Your task to perform on an android device: Search for Mexican restaurants on Maps Image 0: 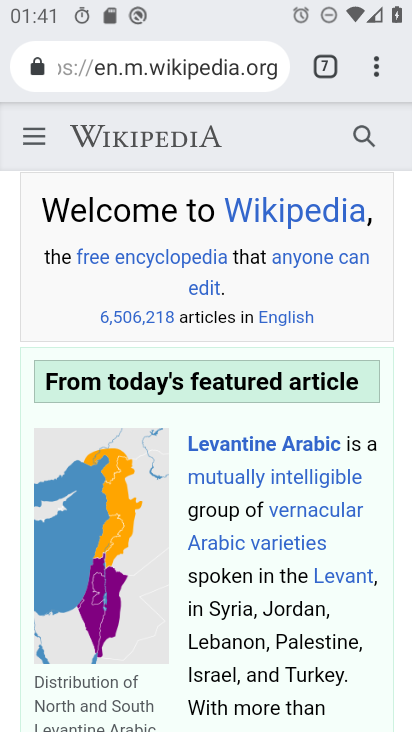
Step 0: press home button
Your task to perform on an android device: Search for Mexican restaurants on Maps Image 1: 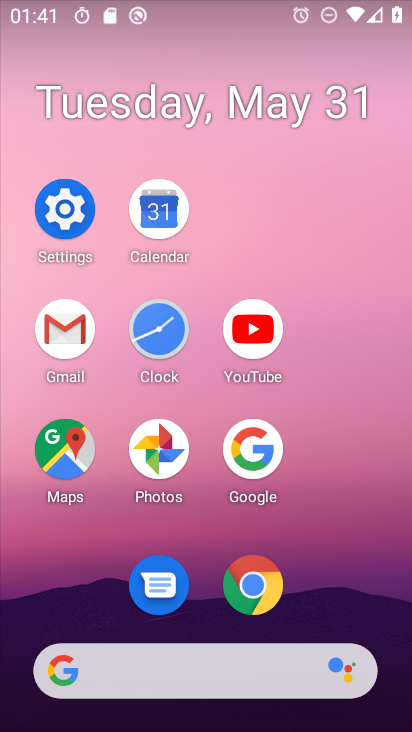
Step 1: click (69, 427)
Your task to perform on an android device: Search for Mexican restaurants on Maps Image 2: 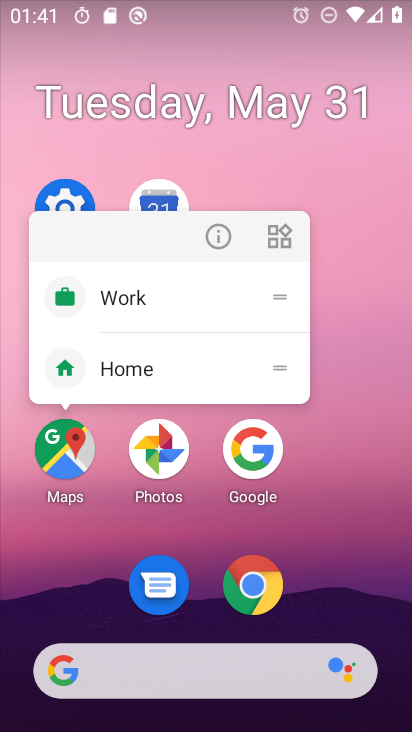
Step 2: click (64, 446)
Your task to perform on an android device: Search for Mexican restaurants on Maps Image 3: 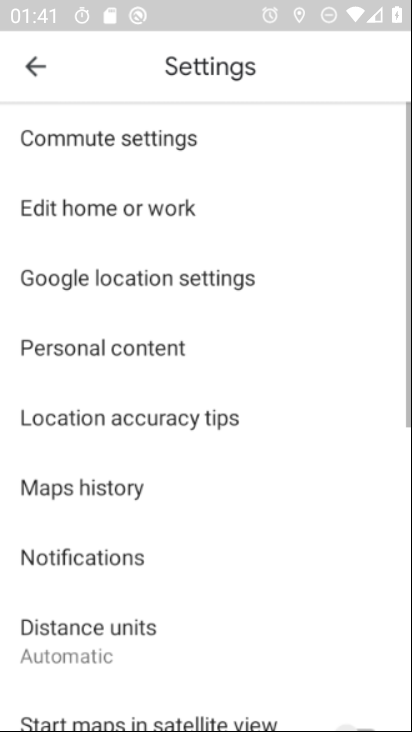
Step 3: click (57, 66)
Your task to perform on an android device: Search for Mexican restaurants on Maps Image 4: 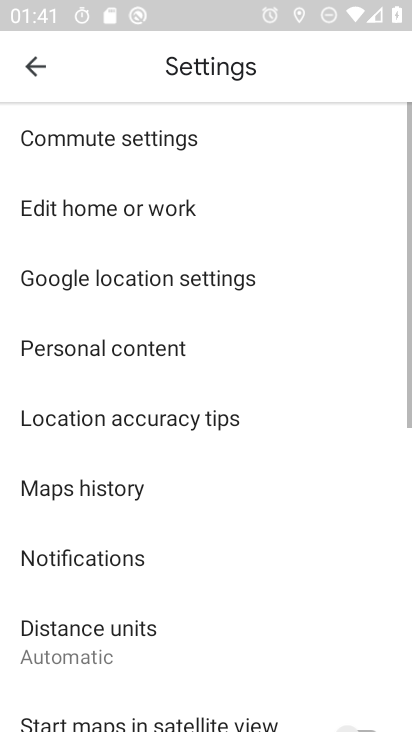
Step 4: click (36, 63)
Your task to perform on an android device: Search for Mexican restaurants on Maps Image 5: 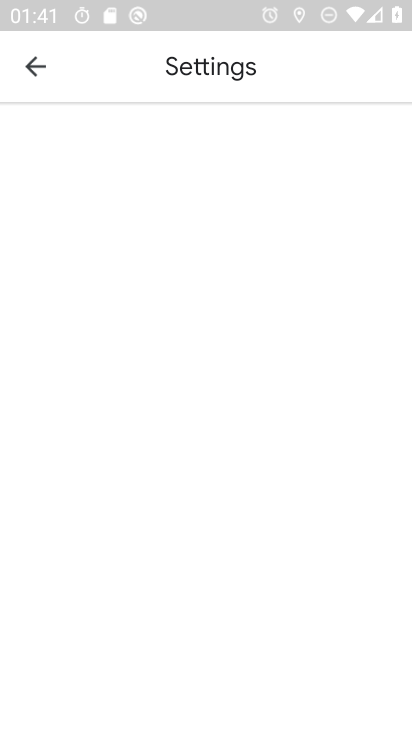
Step 5: click (14, 68)
Your task to perform on an android device: Search for Mexican restaurants on Maps Image 6: 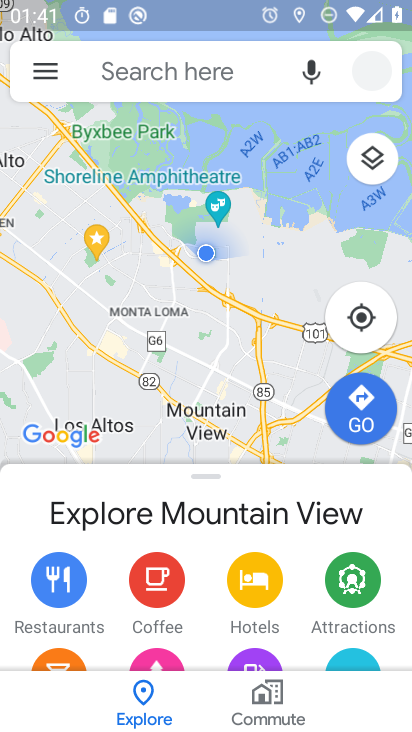
Step 6: click (228, 63)
Your task to perform on an android device: Search for Mexican restaurants on Maps Image 7: 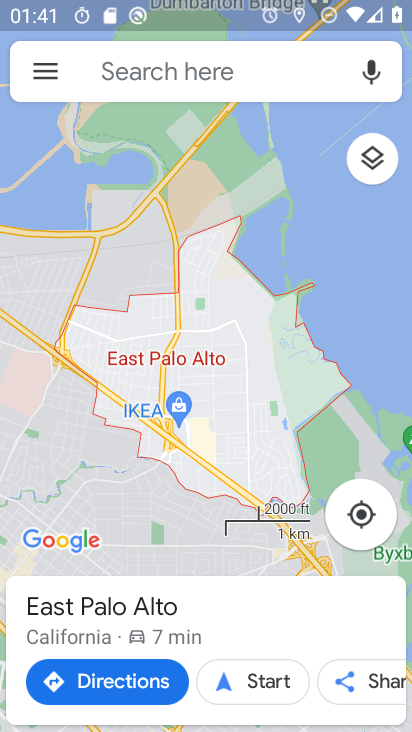
Step 7: click (274, 69)
Your task to perform on an android device: Search for Mexican restaurants on Maps Image 8: 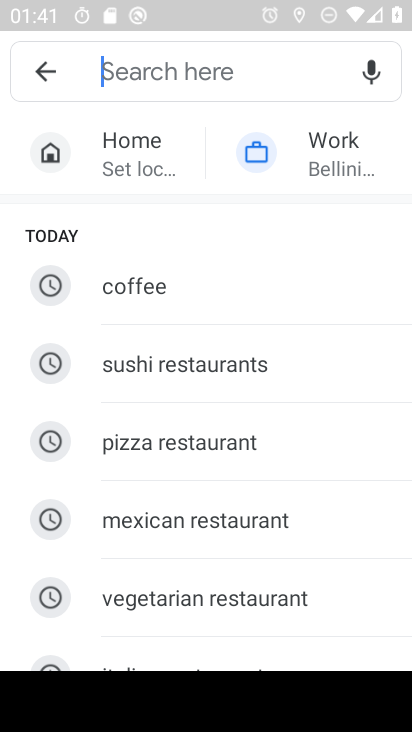
Step 8: click (227, 514)
Your task to perform on an android device: Search for Mexican restaurants on Maps Image 9: 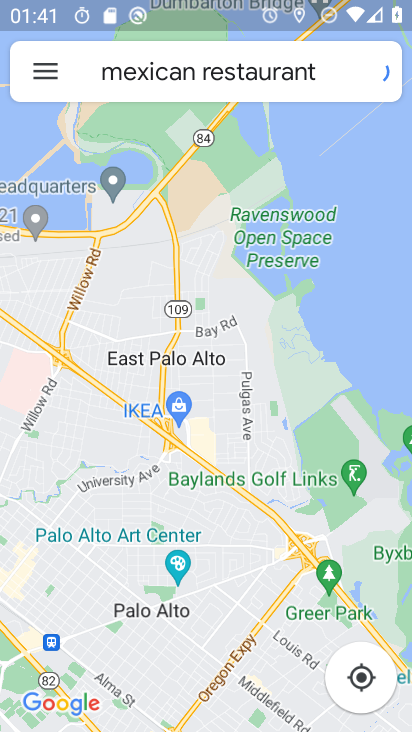
Step 9: task complete